Your task to perform on an android device: turn on data saver in the chrome app Image 0: 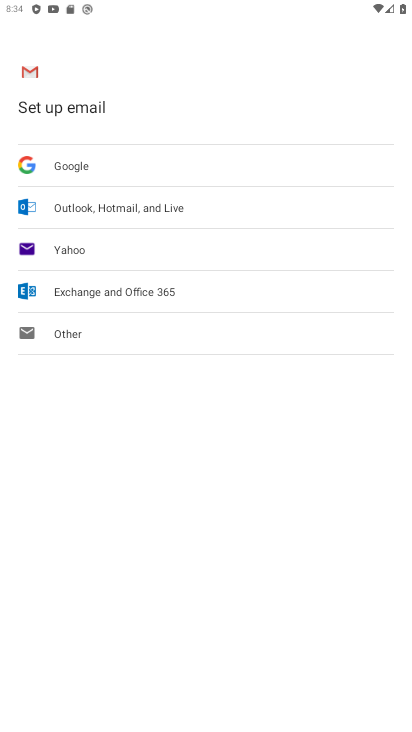
Step 0: press back button
Your task to perform on an android device: turn on data saver in the chrome app Image 1: 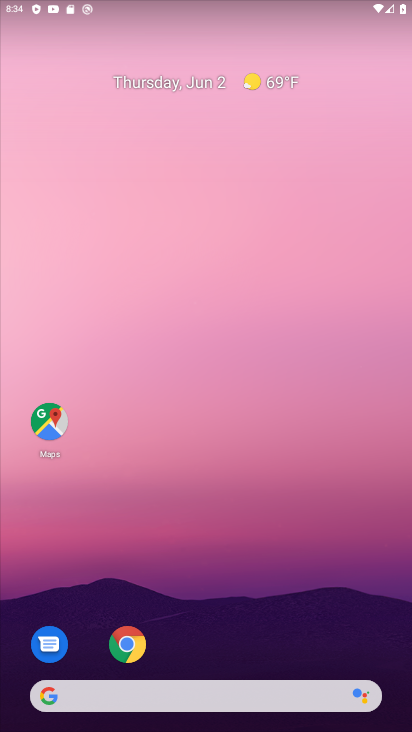
Step 1: drag from (205, 622) to (137, 49)
Your task to perform on an android device: turn on data saver in the chrome app Image 2: 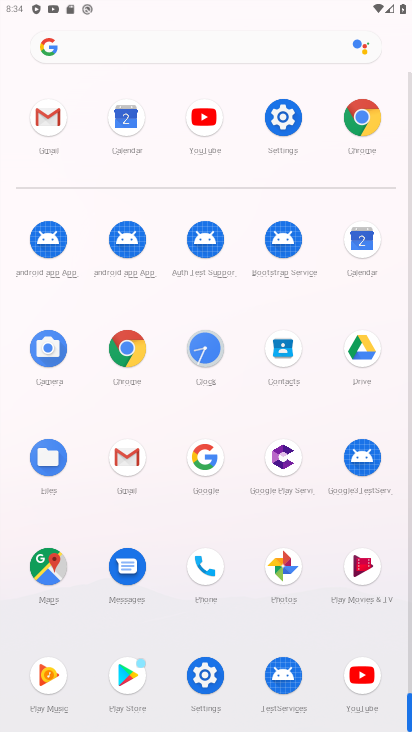
Step 2: click (122, 347)
Your task to perform on an android device: turn on data saver in the chrome app Image 3: 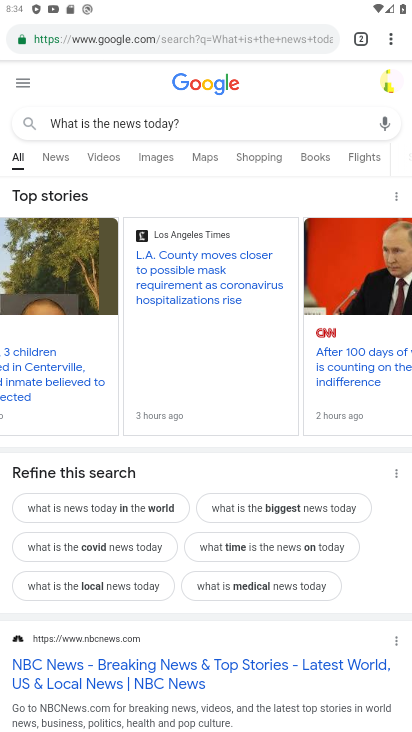
Step 3: drag from (390, 37) to (264, 477)
Your task to perform on an android device: turn on data saver in the chrome app Image 4: 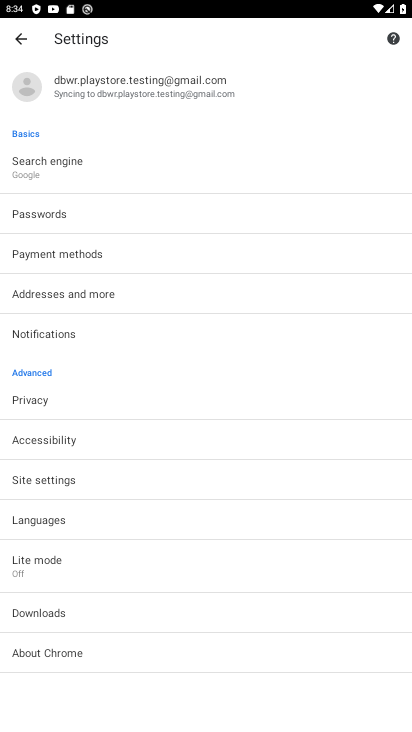
Step 4: drag from (146, 616) to (204, 214)
Your task to perform on an android device: turn on data saver in the chrome app Image 5: 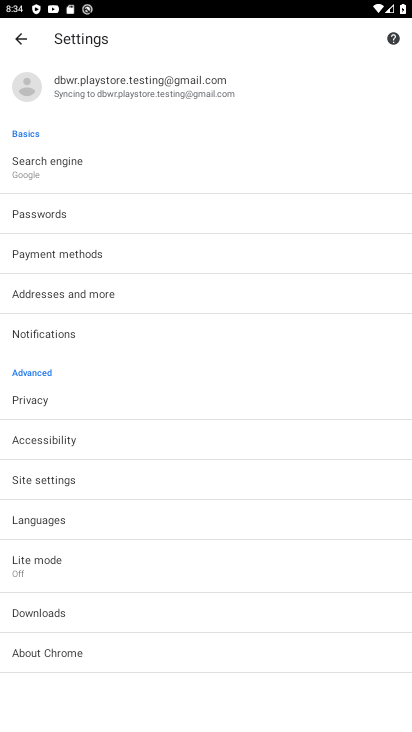
Step 5: click (60, 550)
Your task to perform on an android device: turn on data saver in the chrome app Image 6: 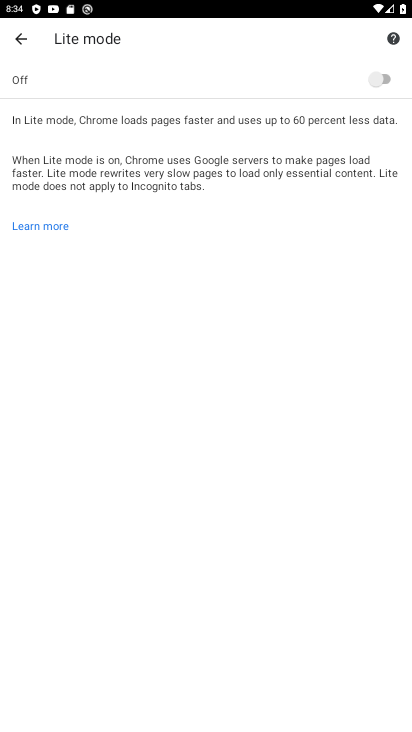
Step 6: click (384, 75)
Your task to perform on an android device: turn on data saver in the chrome app Image 7: 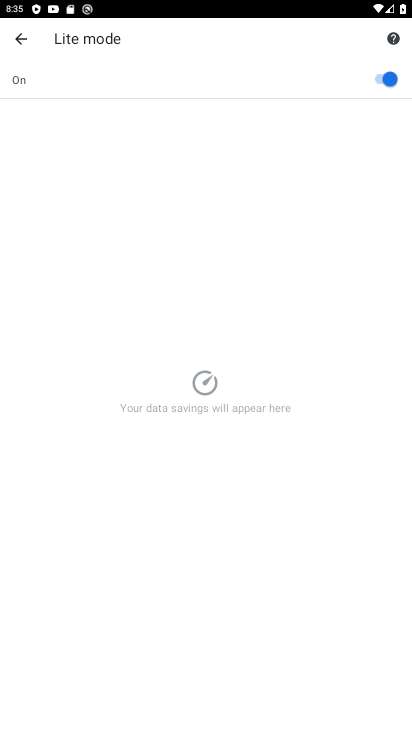
Step 7: task complete